Your task to perform on an android device: turn off improve location accuracy Image 0: 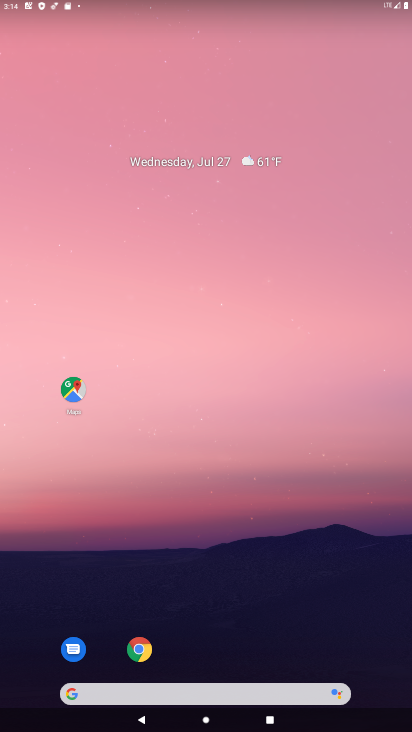
Step 0: drag from (190, 638) to (175, 0)
Your task to perform on an android device: turn off improve location accuracy Image 1: 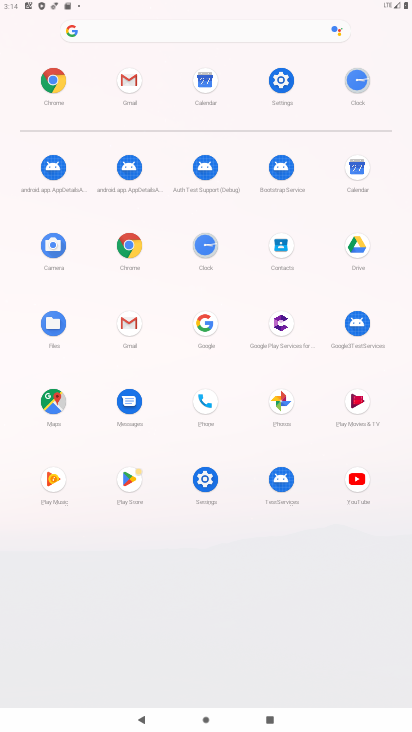
Step 1: click (279, 85)
Your task to perform on an android device: turn off improve location accuracy Image 2: 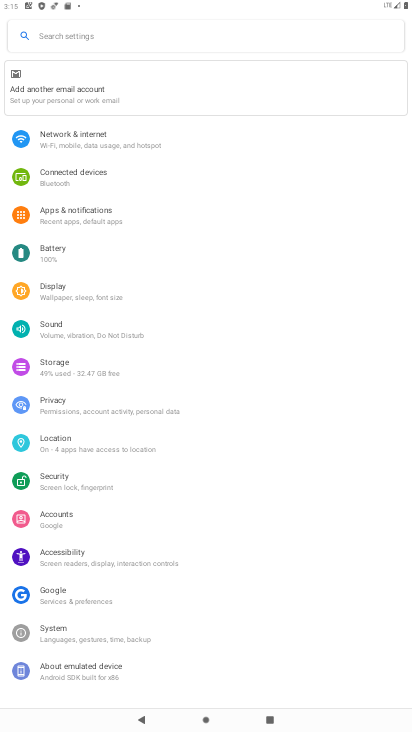
Step 2: click (50, 443)
Your task to perform on an android device: turn off improve location accuracy Image 3: 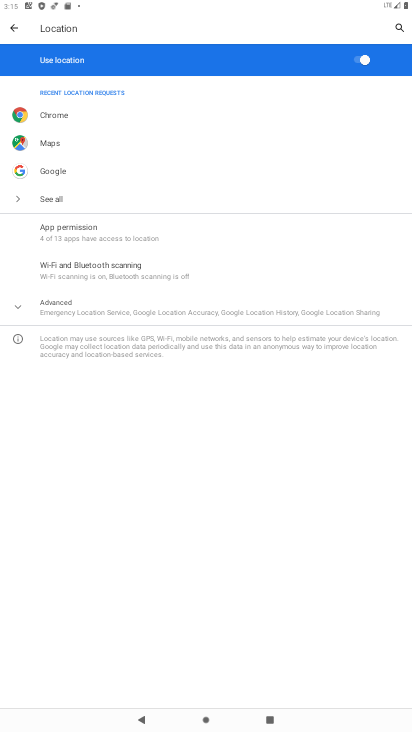
Step 3: click (61, 302)
Your task to perform on an android device: turn off improve location accuracy Image 4: 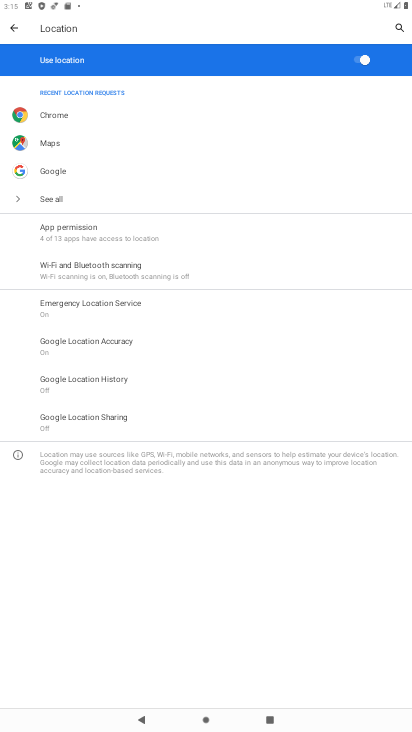
Step 4: click (62, 337)
Your task to perform on an android device: turn off improve location accuracy Image 5: 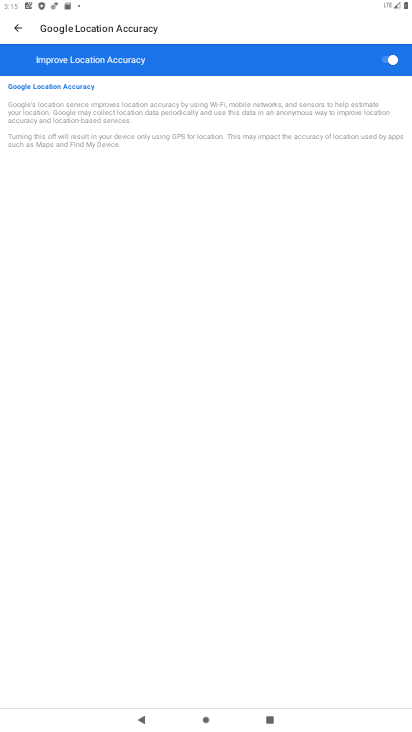
Step 5: click (381, 67)
Your task to perform on an android device: turn off improve location accuracy Image 6: 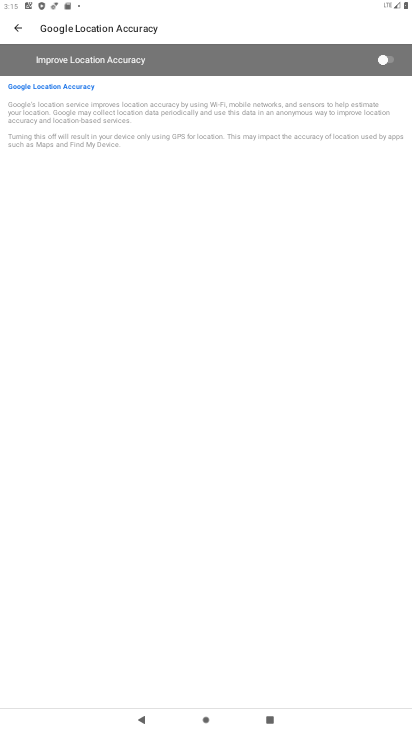
Step 6: task complete